Your task to perform on an android device: visit the assistant section in the google photos Image 0: 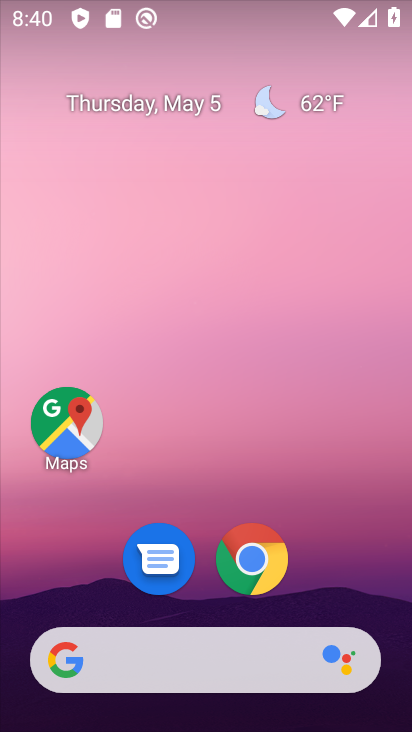
Step 0: drag from (165, 576) to (312, 62)
Your task to perform on an android device: visit the assistant section in the google photos Image 1: 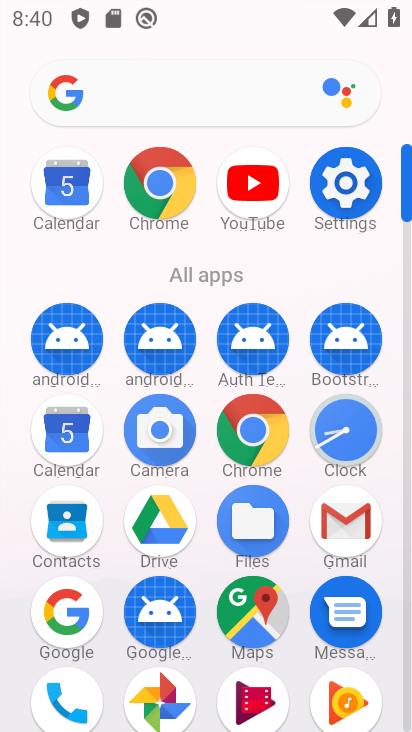
Step 1: click (167, 684)
Your task to perform on an android device: visit the assistant section in the google photos Image 2: 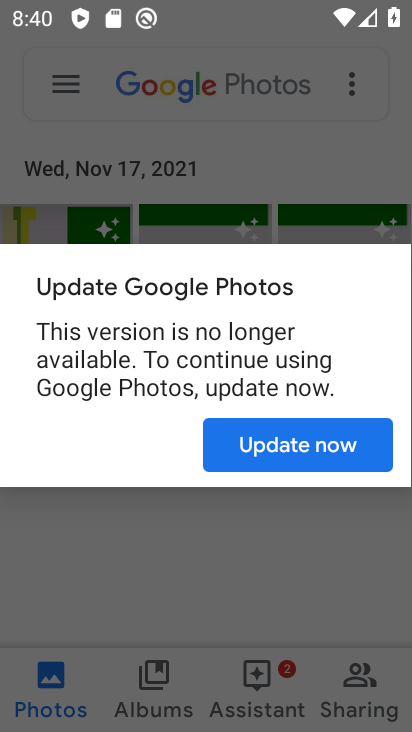
Step 2: click (278, 691)
Your task to perform on an android device: visit the assistant section in the google photos Image 3: 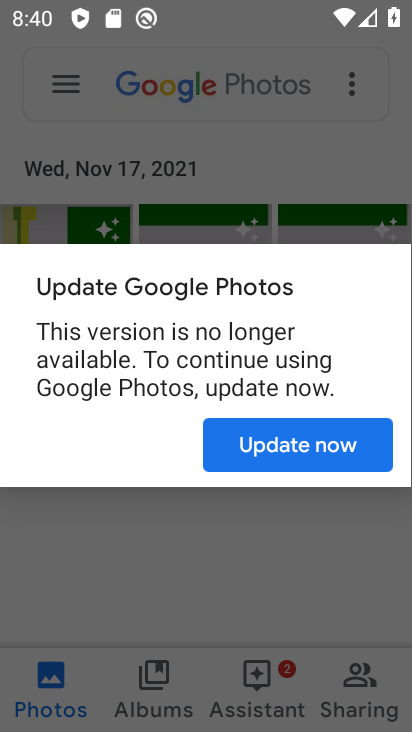
Step 3: click (271, 452)
Your task to perform on an android device: visit the assistant section in the google photos Image 4: 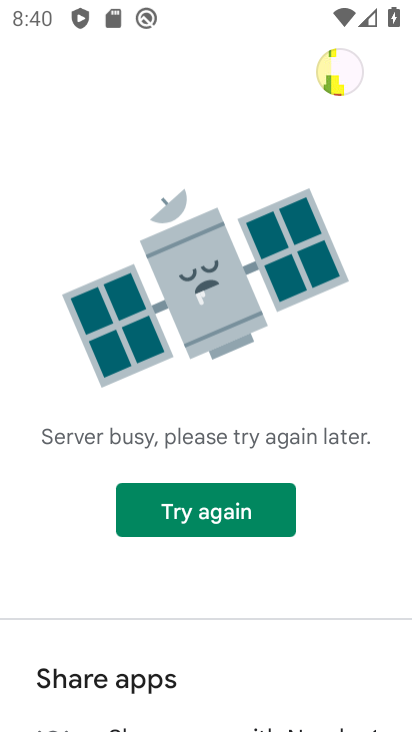
Step 4: click (216, 509)
Your task to perform on an android device: visit the assistant section in the google photos Image 5: 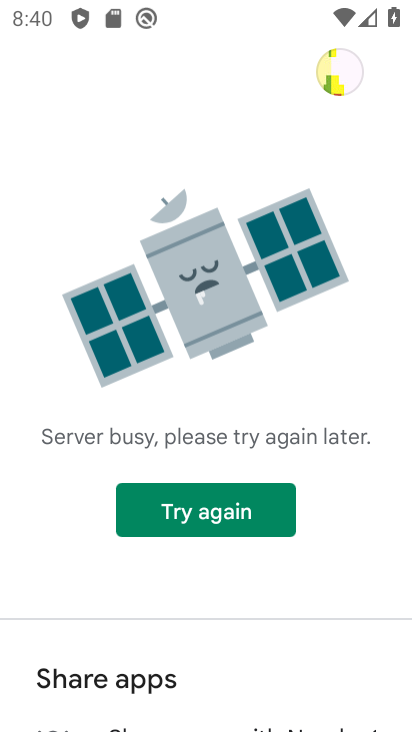
Step 5: press back button
Your task to perform on an android device: visit the assistant section in the google photos Image 6: 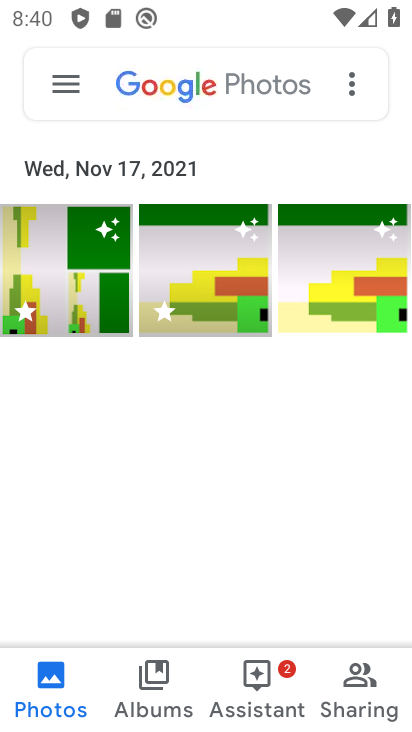
Step 6: click (252, 689)
Your task to perform on an android device: visit the assistant section in the google photos Image 7: 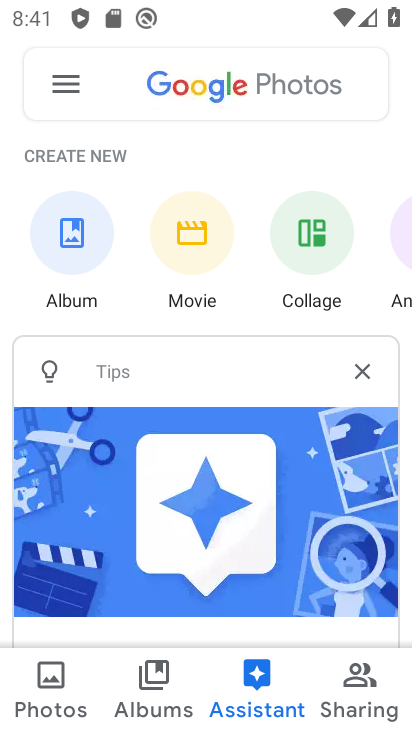
Step 7: task complete